Your task to perform on an android device: set default search engine in the chrome app Image 0: 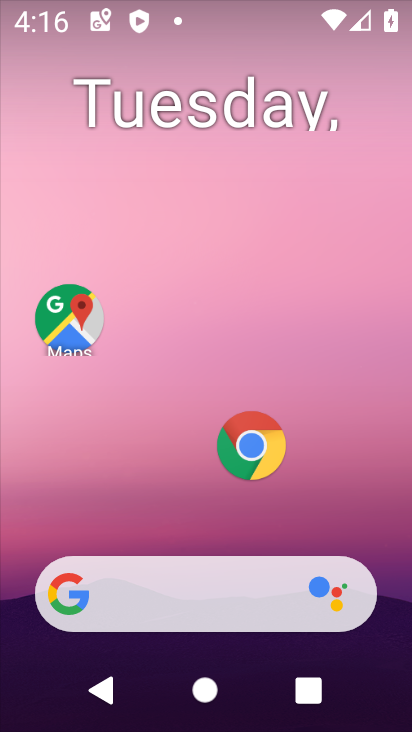
Step 0: click (235, 437)
Your task to perform on an android device: set default search engine in the chrome app Image 1: 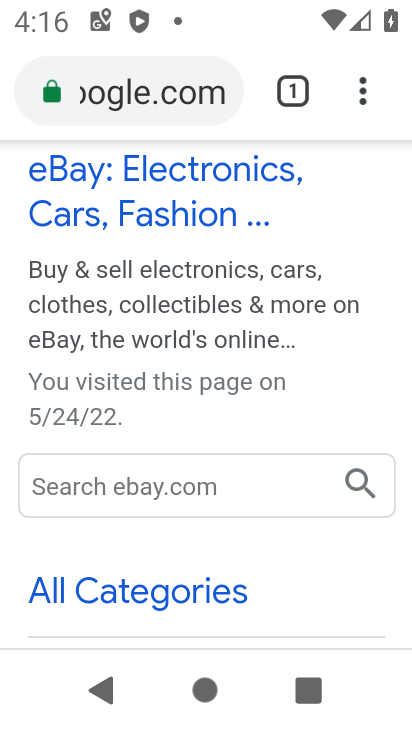
Step 1: click (366, 86)
Your task to perform on an android device: set default search engine in the chrome app Image 2: 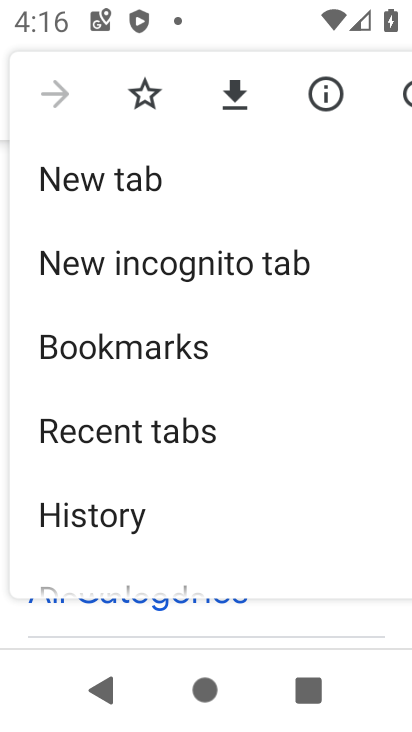
Step 2: drag from (112, 496) to (165, 98)
Your task to perform on an android device: set default search engine in the chrome app Image 3: 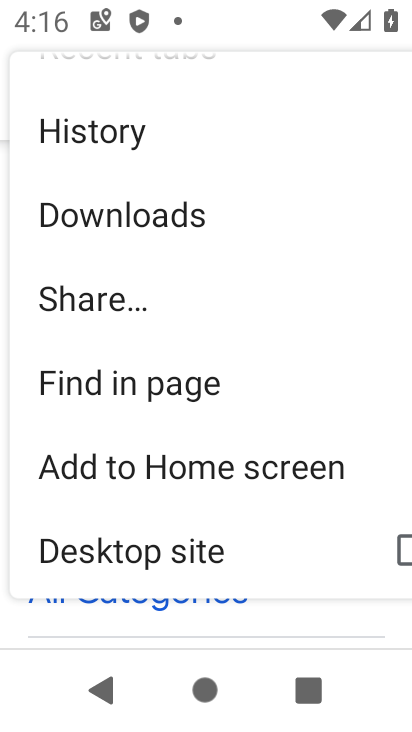
Step 3: drag from (113, 534) to (187, 78)
Your task to perform on an android device: set default search engine in the chrome app Image 4: 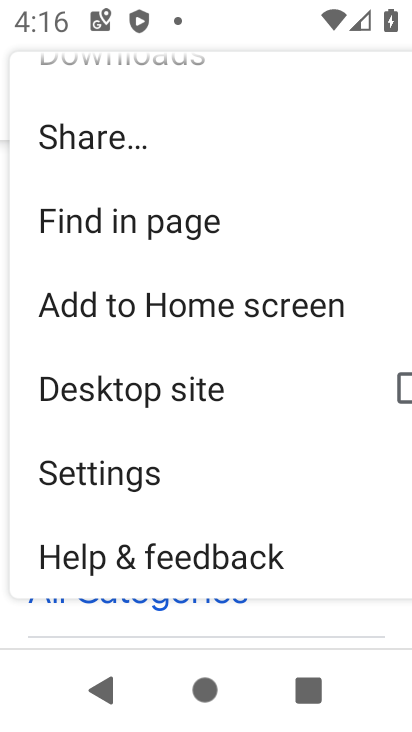
Step 4: click (111, 479)
Your task to perform on an android device: set default search engine in the chrome app Image 5: 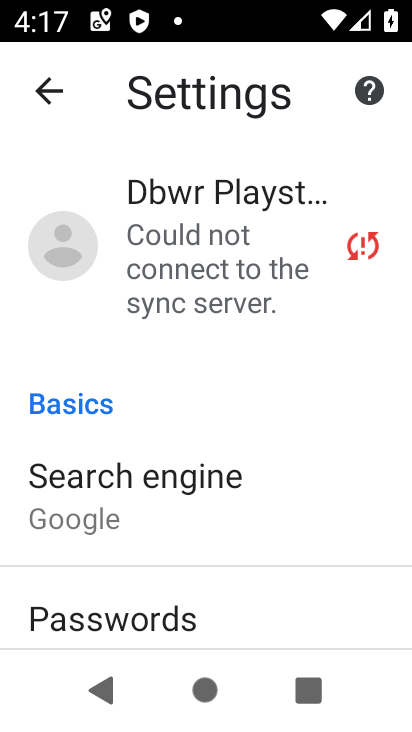
Step 5: drag from (203, 505) to (223, 370)
Your task to perform on an android device: set default search engine in the chrome app Image 6: 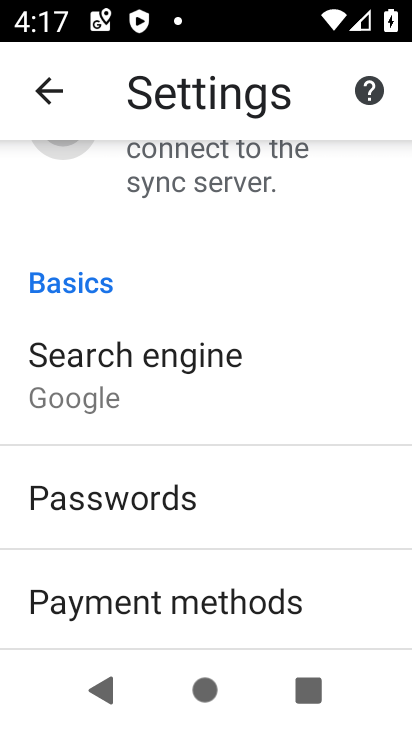
Step 6: click (164, 409)
Your task to perform on an android device: set default search engine in the chrome app Image 7: 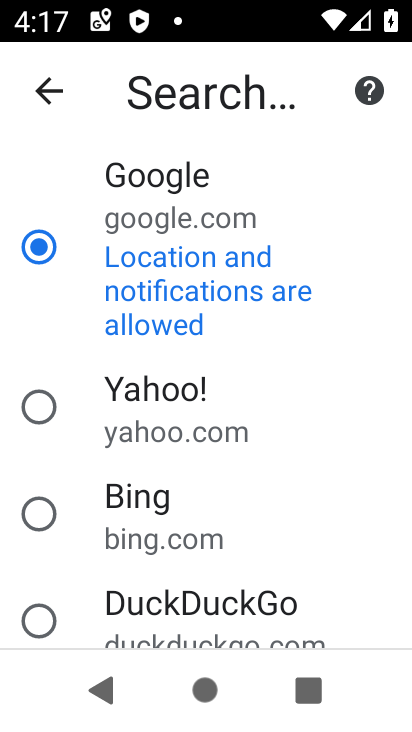
Step 7: task complete